Your task to perform on an android device: see creations saved in the google photos Image 0: 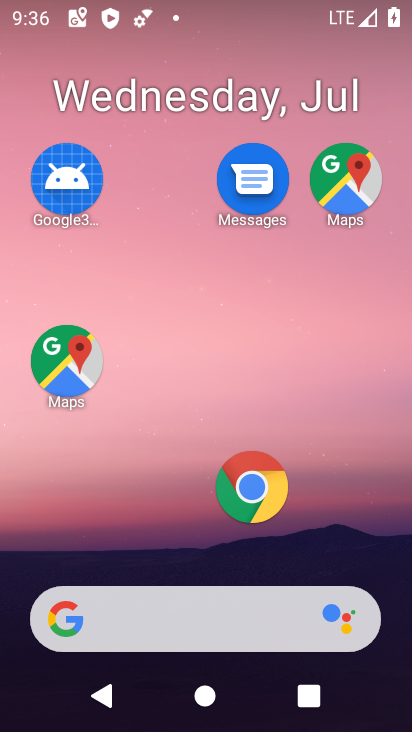
Step 0: drag from (162, 569) to (155, 26)
Your task to perform on an android device: see creations saved in the google photos Image 1: 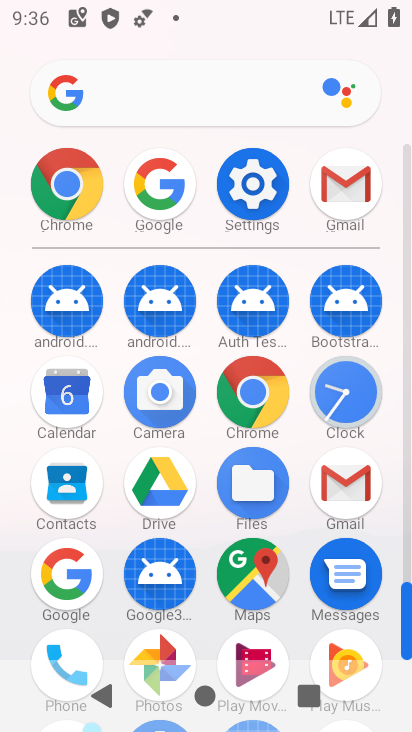
Step 1: click (134, 651)
Your task to perform on an android device: see creations saved in the google photos Image 2: 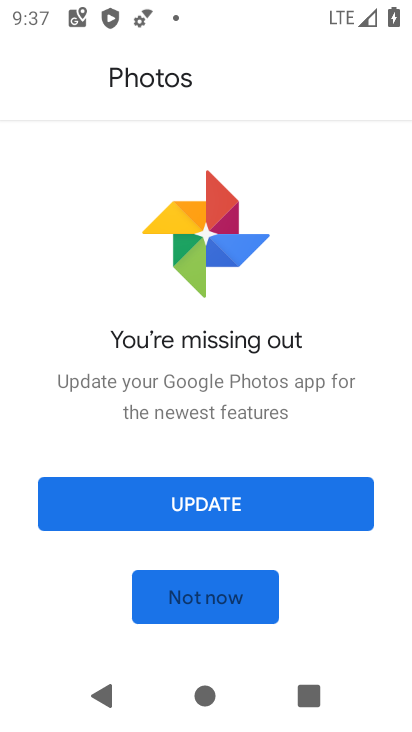
Step 2: click (179, 584)
Your task to perform on an android device: see creations saved in the google photos Image 3: 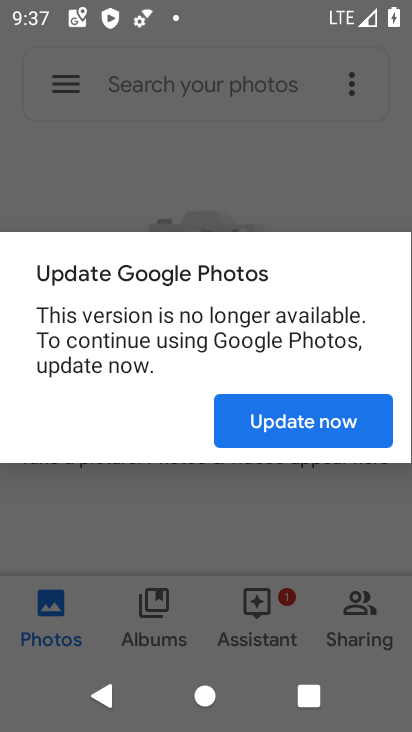
Step 3: click (288, 418)
Your task to perform on an android device: see creations saved in the google photos Image 4: 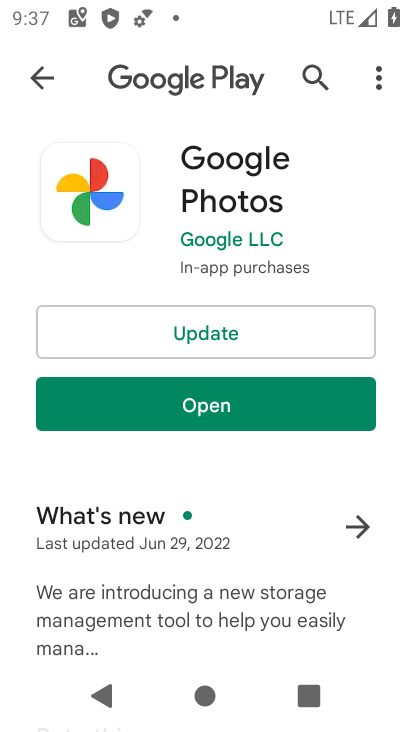
Step 4: click (218, 332)
Your task to perform on an android device: see creations saved in the google photos Image 5: 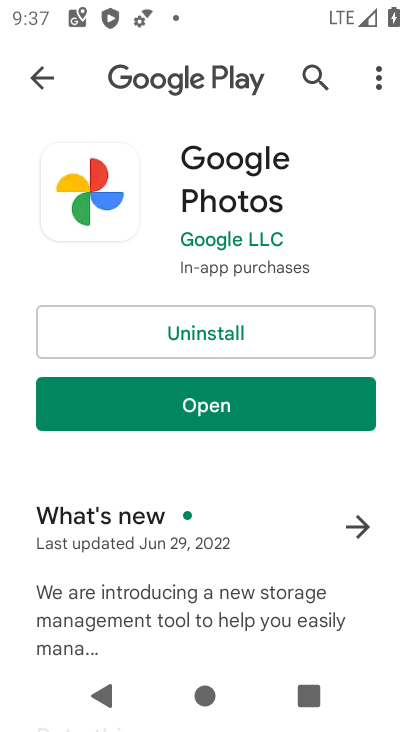
Step 5: click (205, 386)
Your task to perform on an android device: see creations saved in the google photos Image 6: 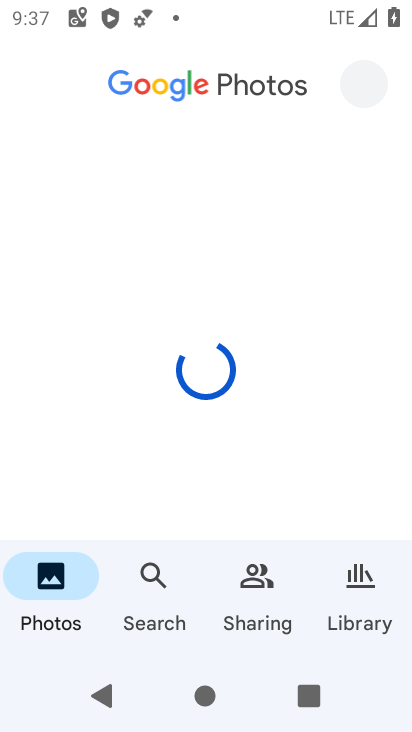
Step 6: click (268, 591)
Your task to perform on an android device: see creations saved in the google photos Image 7: 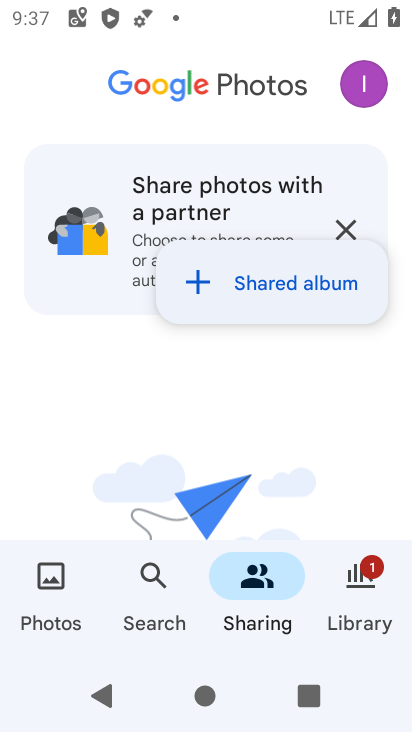
Step 7: click (284, 412)
Your task to perform on an android device: see creations saved in the google photos Image 8: 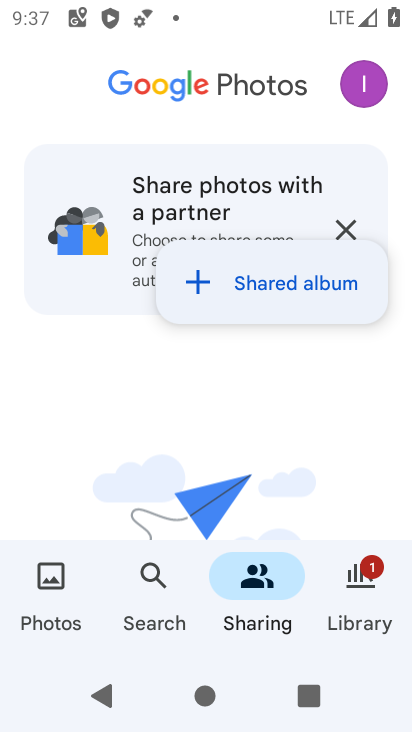
Step 8: click (365, 583)
Your task to perform on an android device: see creations saved in the google photos Image 9: 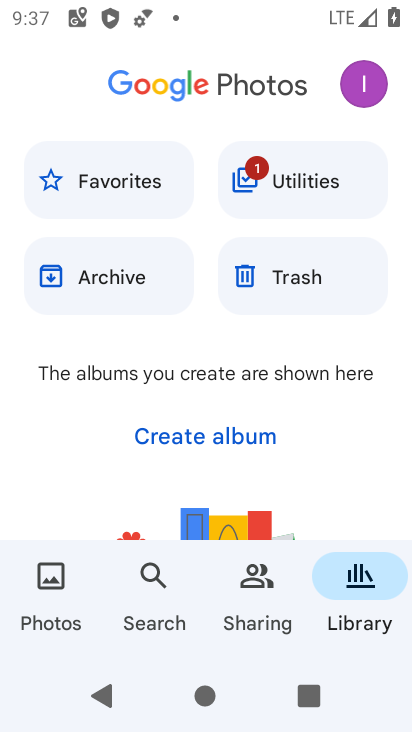
Step 9: drag from (293, 499) to (244, 227)
Your task to perform on an android device: see creations saved in the google photos Image 10: 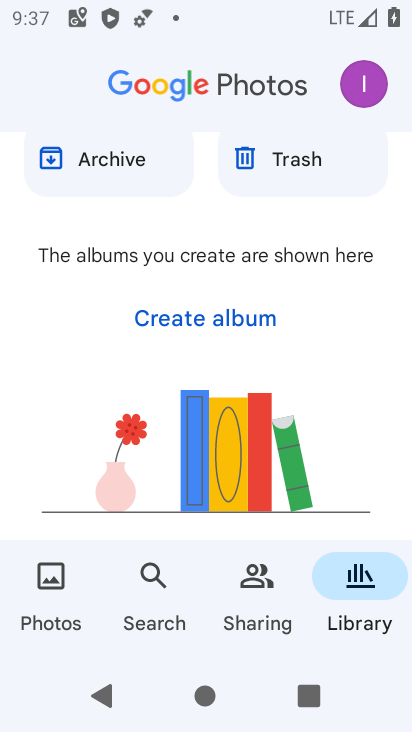
Step 10: click (151, 562)
Your task to perform on an android device: see creations saved in the google photos Image 11: 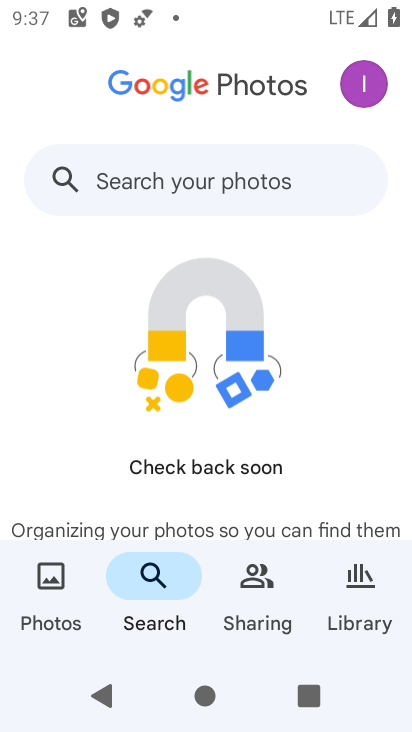
Step 11: click (145, 208)
Your task to perform on an android device: see creations saved in the google photos Image 12: 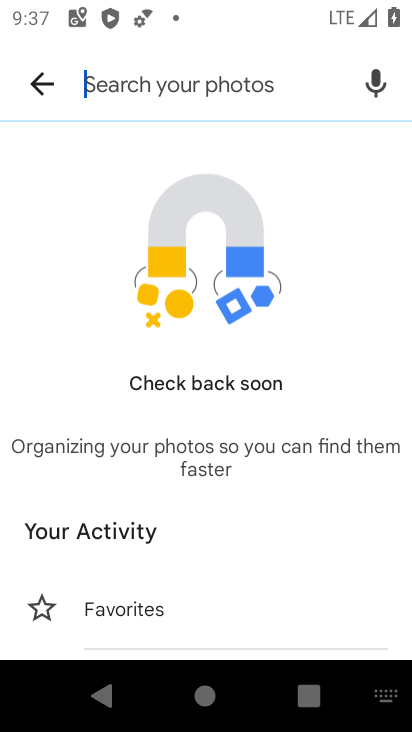
Step 12: drag from (152, 510) to (146, 191)
Your task to perform on an android device: see creations saved in the google photos Image 13: 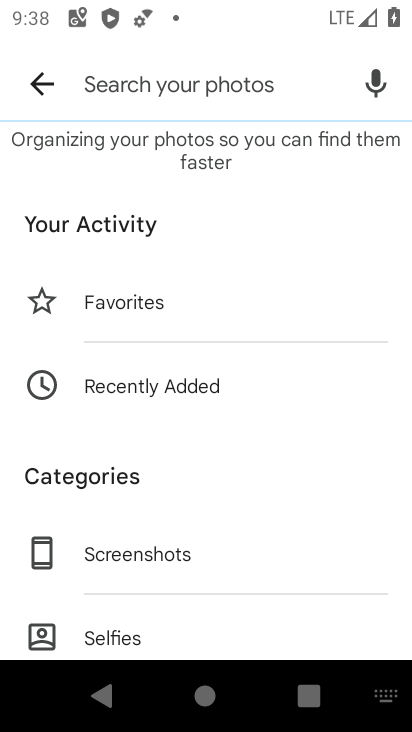
Step 13: drag from (150, 470) to (171, 158)
Your task to perform on an android device: see creations saved in the google photos Image 14: 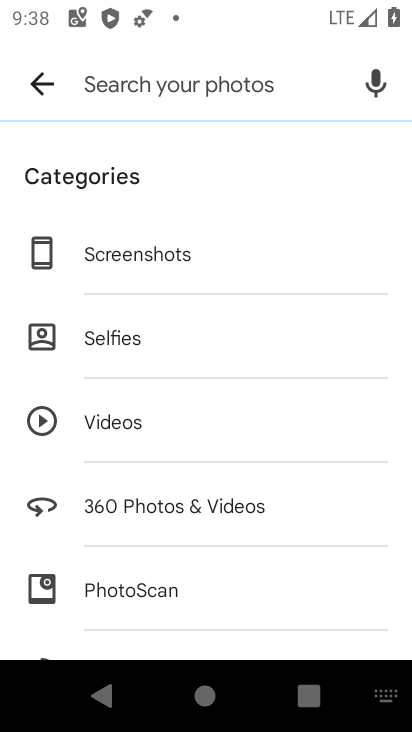
Step 14: drag from (140, 494) to (105, 193)
Your task to perform on an android device: see creations saved in the google photos Image 15: 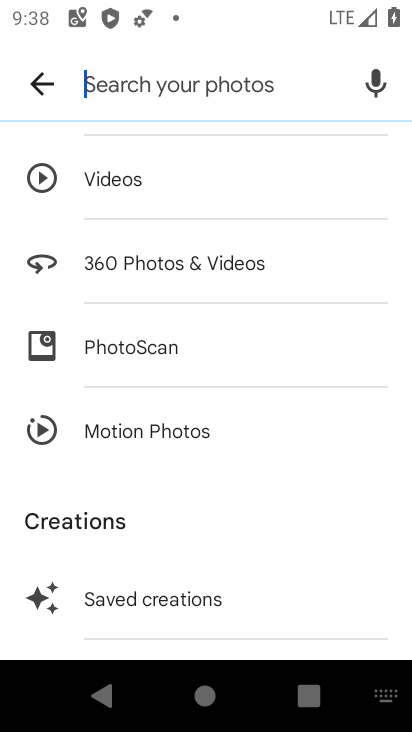
Step 15: click (118, 607)
Your task to perform on an android device: see creations saved in the google photos Image 16: 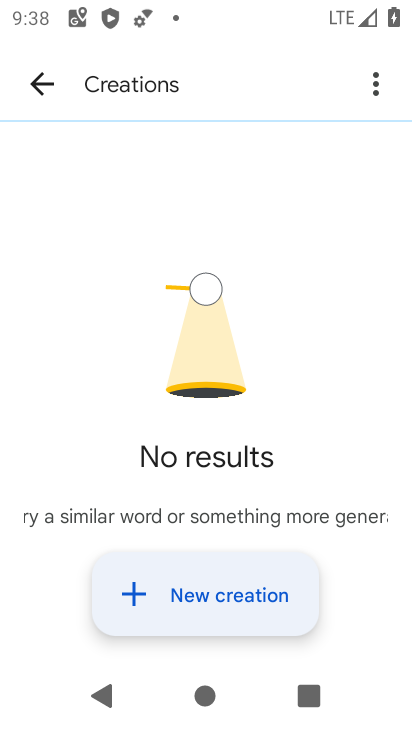
Step 16: task complete